Your task to perform on an android device: change text size in settings app Image 0: 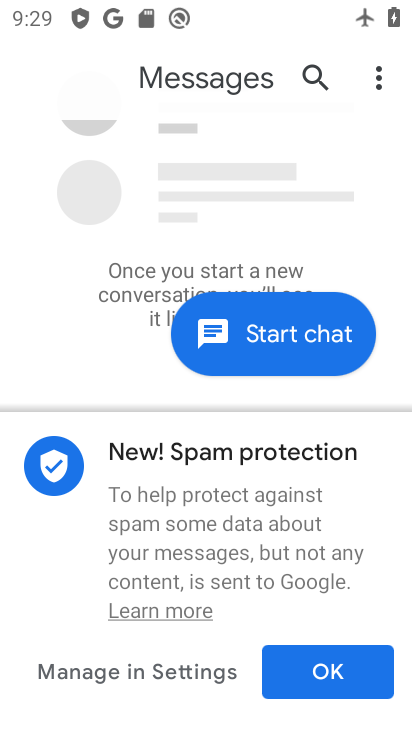
Step 0: press back button
Your task to perform on an android device: change text size in settings app Image 1: 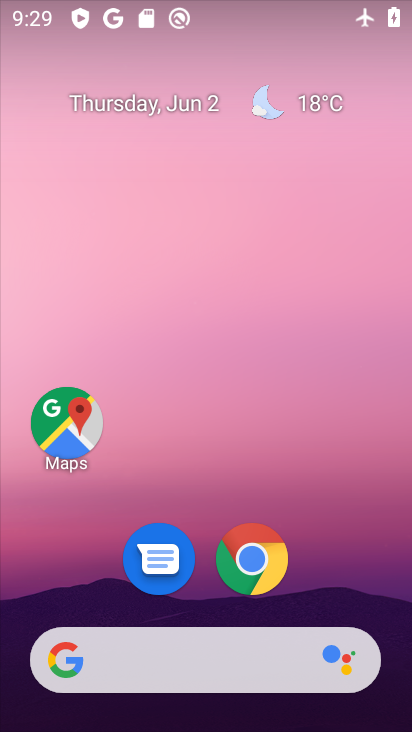
Step 1: drag from (335, 557) to (264, 115)
Your task to perform on an android device: change text size in settings app Image 2: 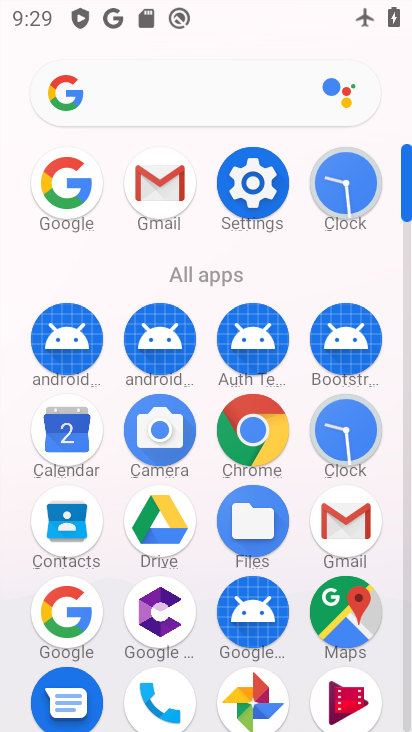
Step 2: click (255, 179)
Your task to perform on an android device: change text size in settings app Image 3: 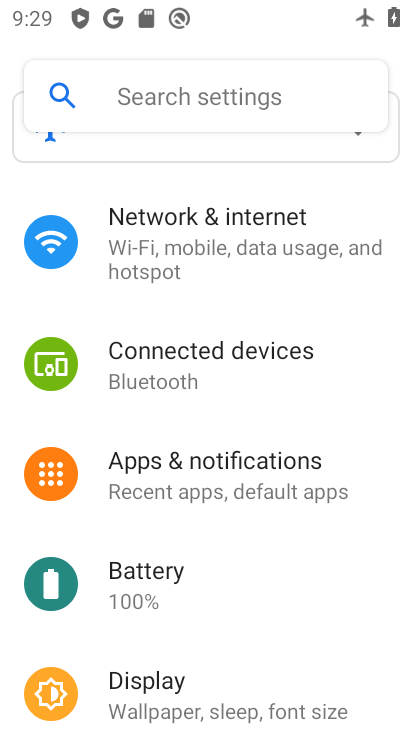
Step 3: drag from (184, 407) to (215, 285)
Your task to perform on an android device: change text size in settings app Image 4: 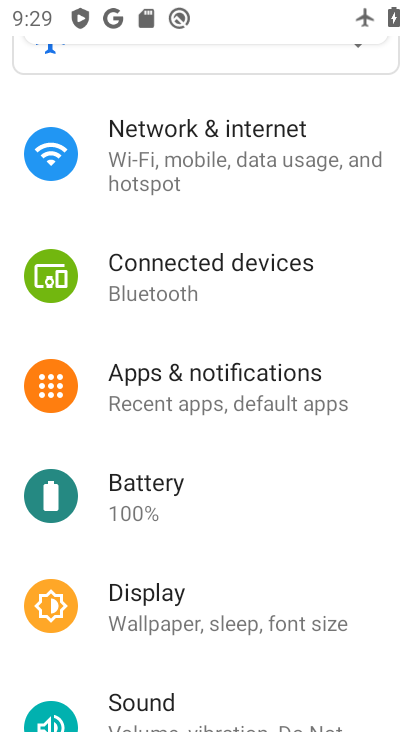
Step 4: drag from (185, 430) to (220, 284)
Your task to perform on an android device: change text size in settings app Image 5: 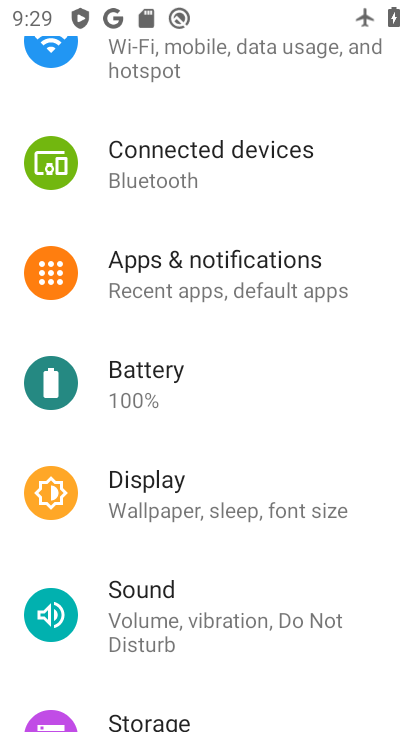
Step 5: drag from (189, 440) to (255, 334)
Your task to perform on an android device: change text size in settings app Image 6: 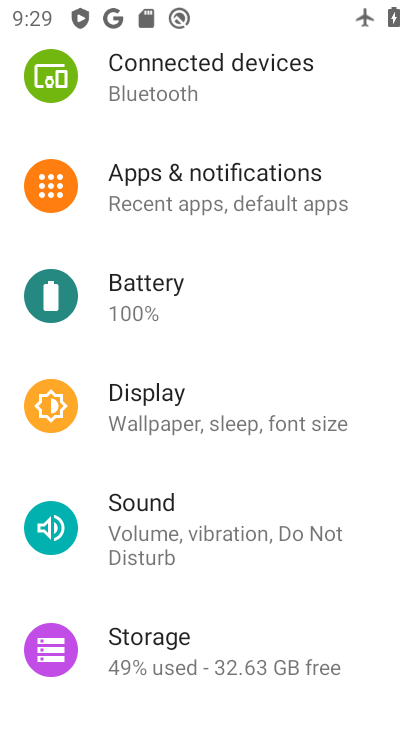
Step 6: drag from (188, 461) to (275, 337)
Your task to perform on an android device: change text size in settings app Image 7: 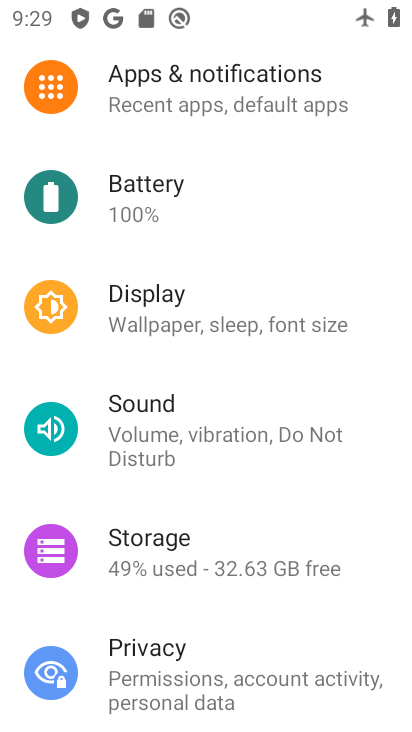
Step 7: drag from (185, 496) to (278, 374)
Your task to perform on an android device: change text size in settings app Image 8: 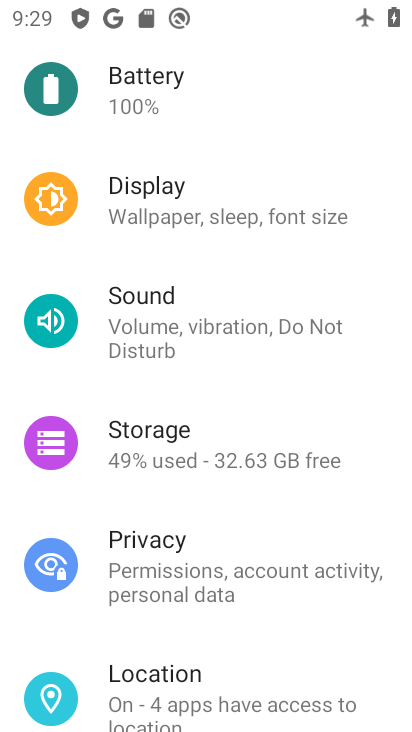
Step 8: drag from (175, 498) to (284, 382)
Your task to perform on an android device: change text size in settings app Image 9: 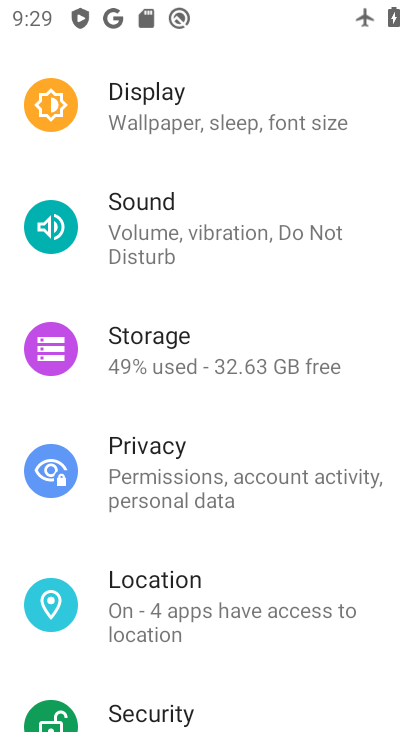
Step 9: drag from (186, 530) to (284, 410)
Your task to perform on an android device: change text size in settings app Image 10: 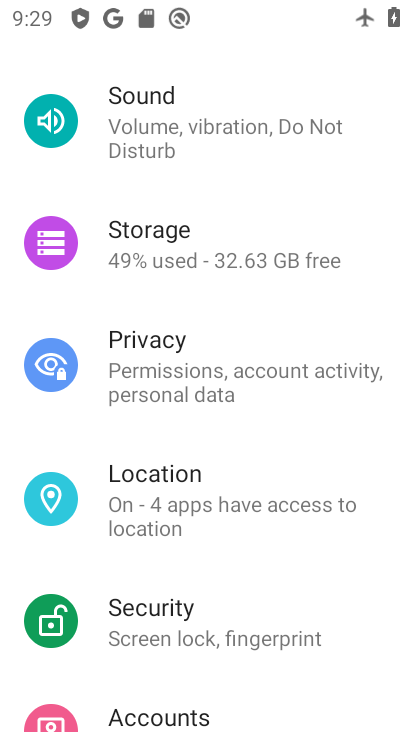
Step 10: drag from (186, 439) to (285, 317)
Your task to perform on an android device: change text size in settings app Image 11: 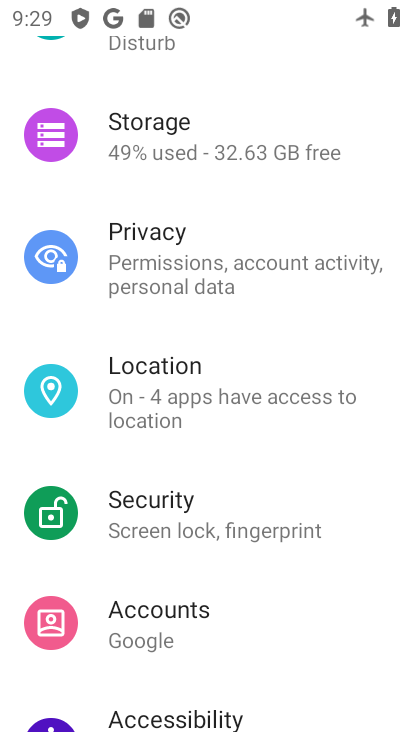
Step 11: drag from (165, 451) to (249, 319)
Your task to perform on an android device: change text size in settings app Image 12: 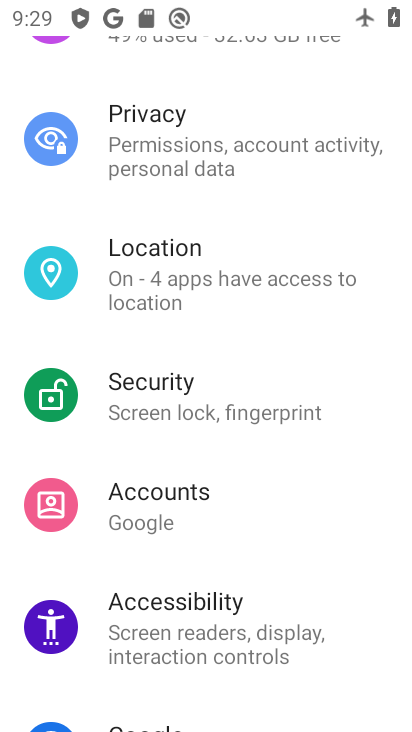
Step 12: click (153, 603)
Your task to perform on an android device: change text size in settings app Image 13: 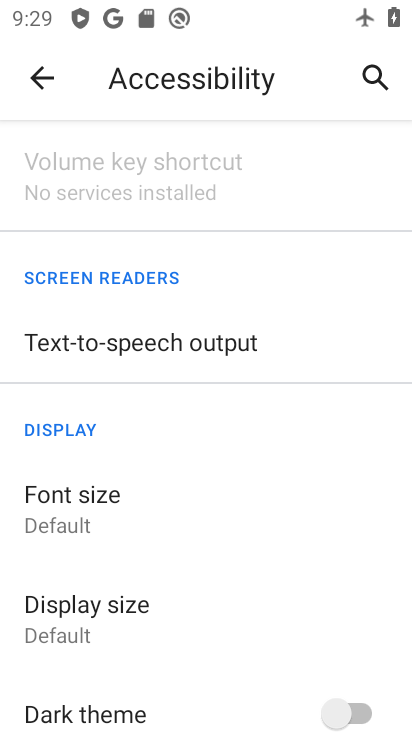
Step 13: click (109, 503)
Your task to perform on an android device: change text size in settings app Image 14: 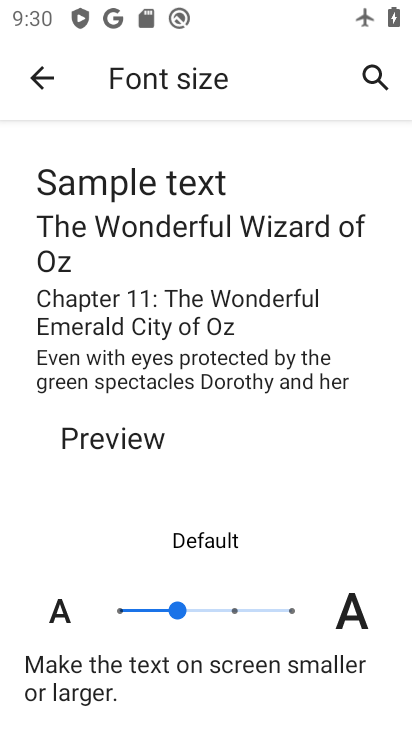
Step 14: click (121, 612)
Your task to perform on an android device: change text size in settings app Image 15: 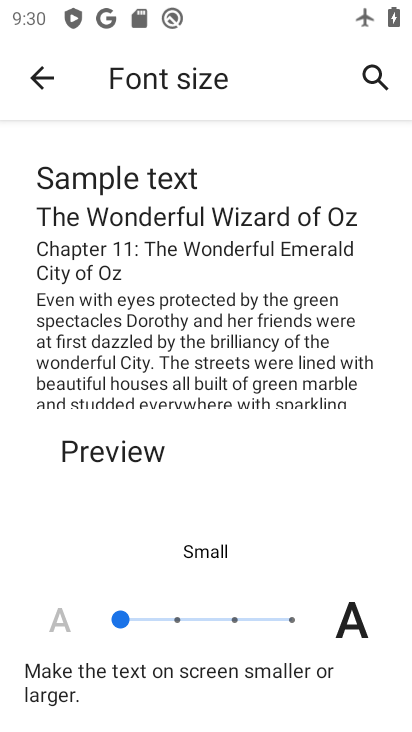
Step 15: task complete